Your task to perform on an android device: Open display settings Image 0: 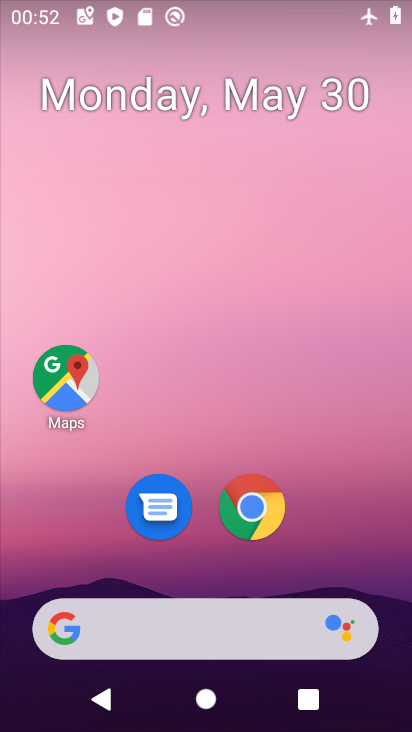
Step 0: drag from (351, 521) to (278, 192)
Your task to perform on an android device: Open display settings Image 1: 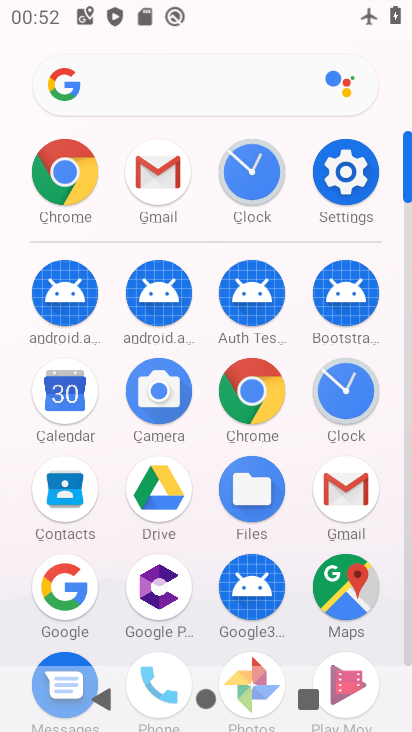
Step 1: click (332, 174)
Your task to perform on an android device: Open display settings Image 2: 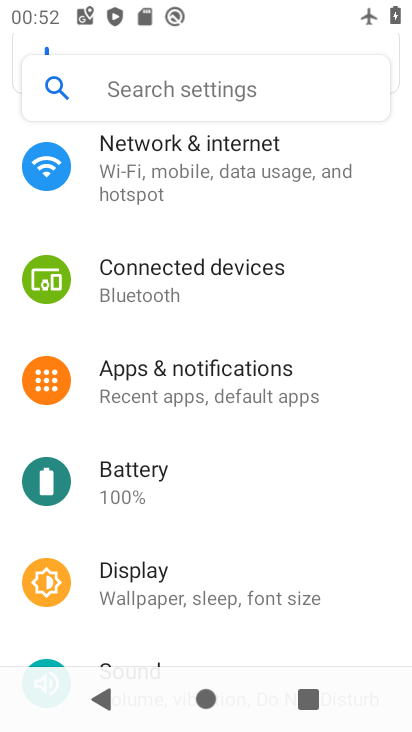
Step 2: drag from (234, 570) to (225, 235)
Your task to perform on an android device: Open display settings Image 3: 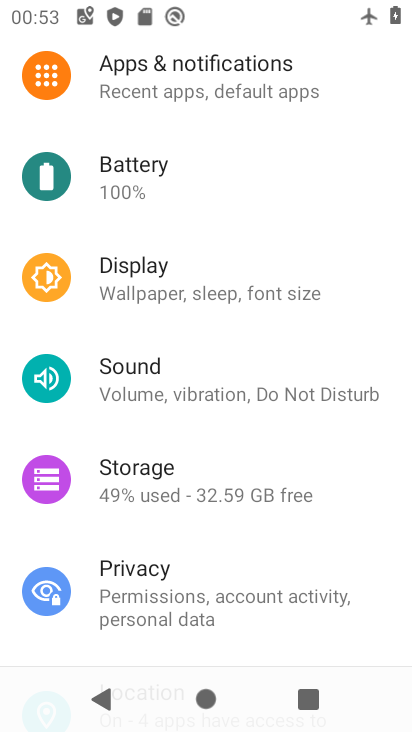
Step 3: drag from (261, 612) to (281, 262)
Your task to perform on an android device: Open display settings Image 4: 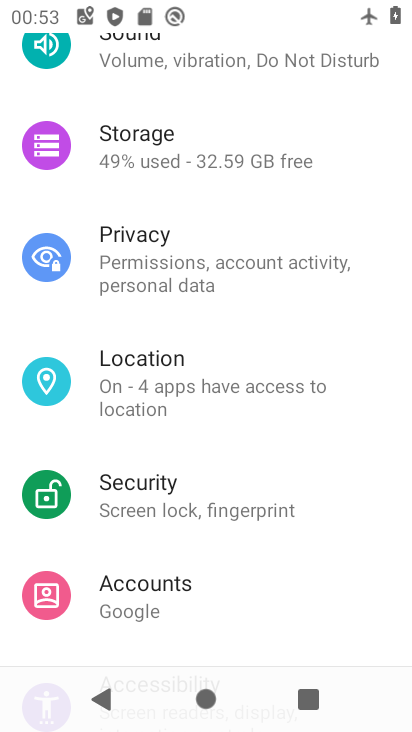
Step 4: drag from (207, 554) to (241, 295)
Your task to perform on an android device: Open display settings Image 5: 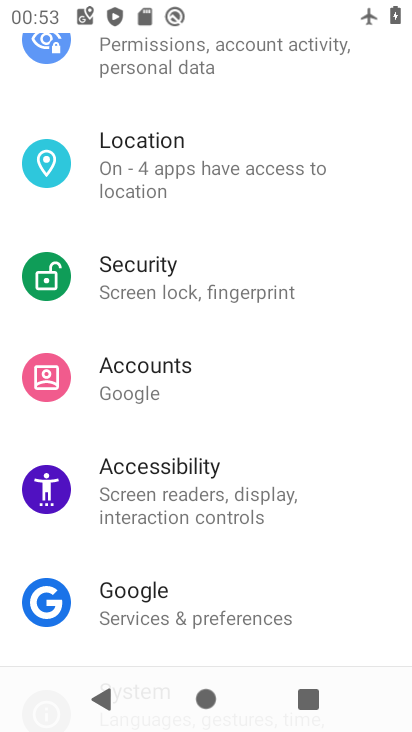
Step 5: drag from (242, 154) to (247, 542)
Your task to perform on an android device: Open display settings Image 6: 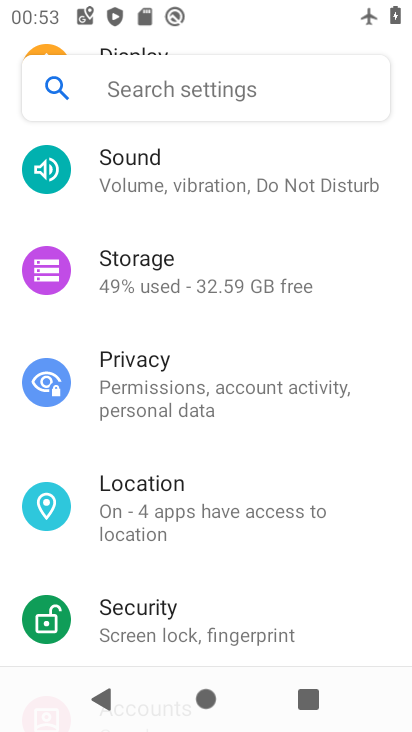
Step 6: drag from (234, 250) to (171, 548)
Your task to perform on an android device: Open display settings Image 7: 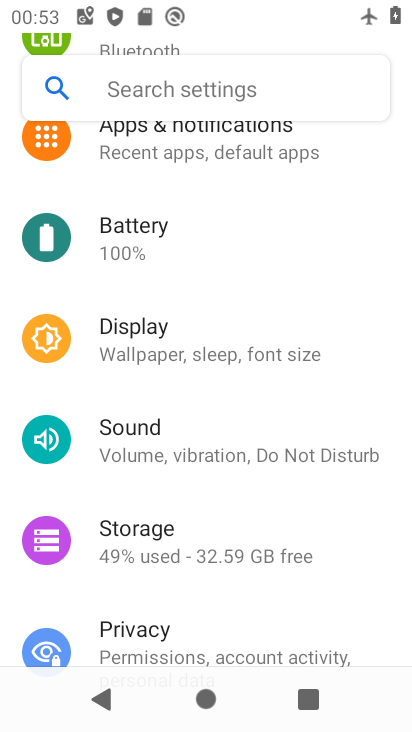
Step 7: drag from (190, 145) to (172, 414)
Your task to perform on an android device: Open display settings Image 8: 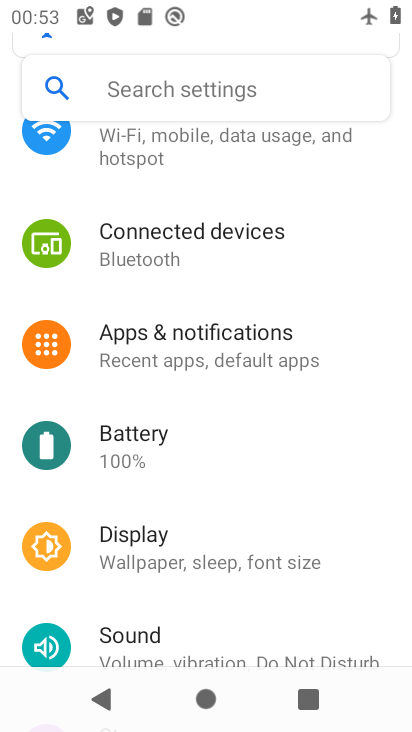
Step 8: click (143, 549)
Your task to perform on an android device: Open display settings Image 9: 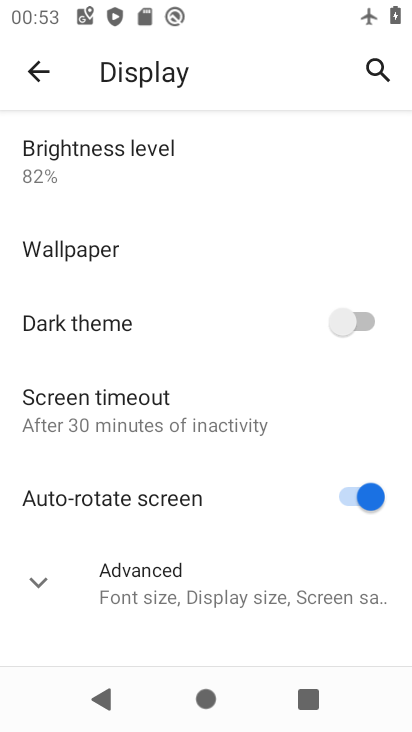
Step 9: task complete